Your task to perform on an android device: turn off notifications settings in the gmail app Image 0: 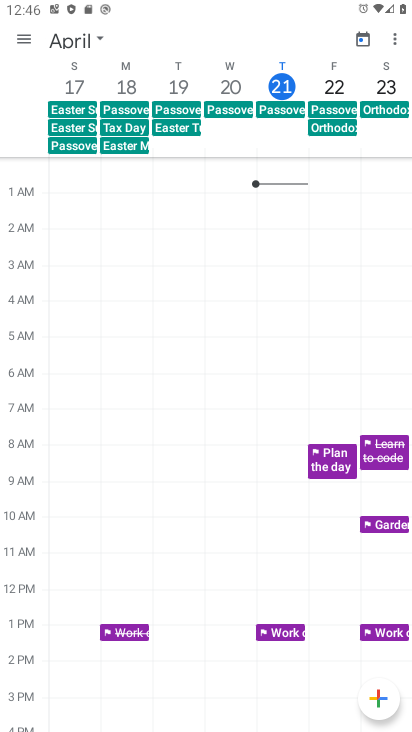
Step 0: press home button
Your task to perform on an android device: turn off notifications settings in the gmail app Image 1: 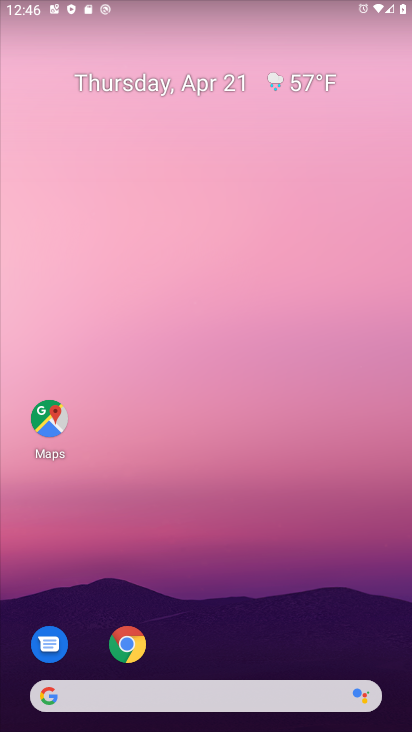
Step 1: drag from (221, 668) to (151, 59)
Your task to perform on an android device: turn off notifications settings in the gmail app Image 2: 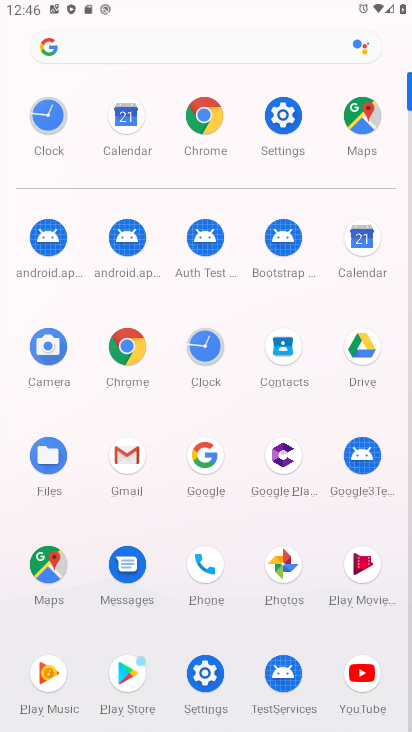
Step 2: click (115, 461)
Your task to perform on an android device: turn off notifications settings in the gmail app Image 3: 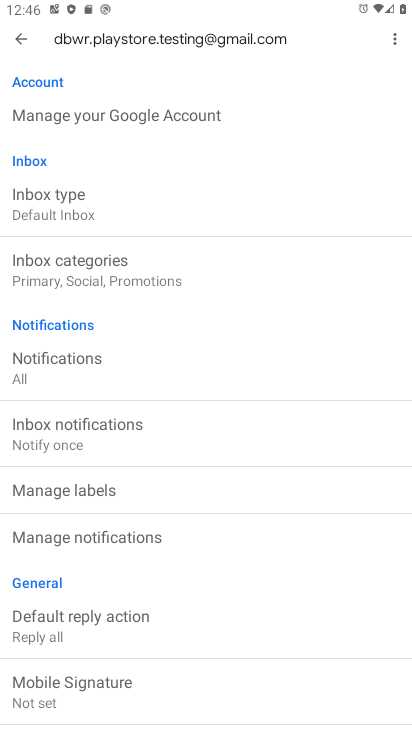
Step 3: click (21, 37)
Your task to perform on an android device: turn off notifications settings in the gmail app Image 4: 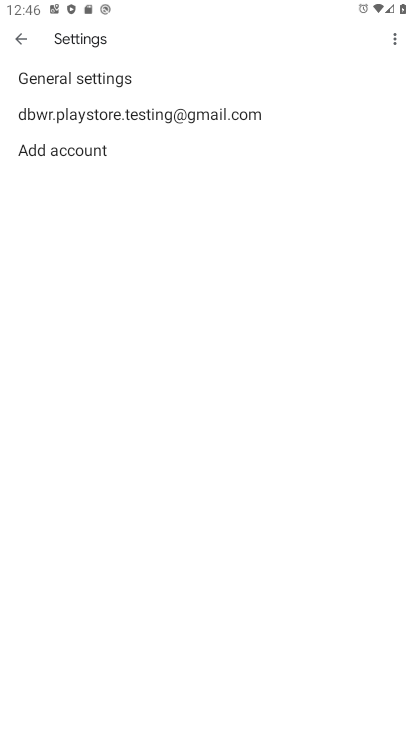
Step 4: click (41, 74)
Your task to perform on an android device: turn off notifications settings in the gmail app Image 5: 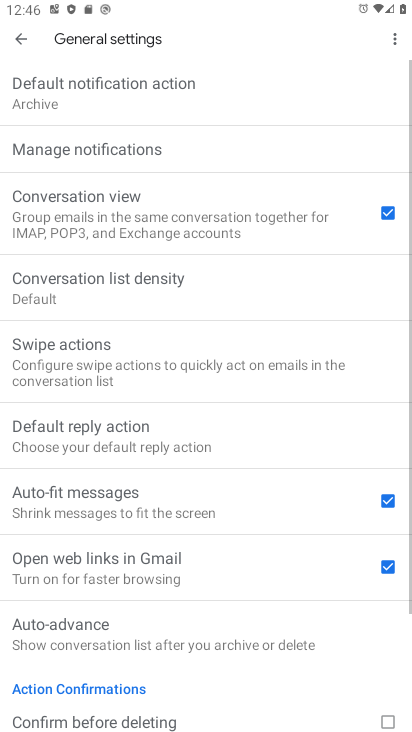
Step 5: click (79, 153)
Your task to perform on an android device: turn off notifications settings in the gmail app Image 6: 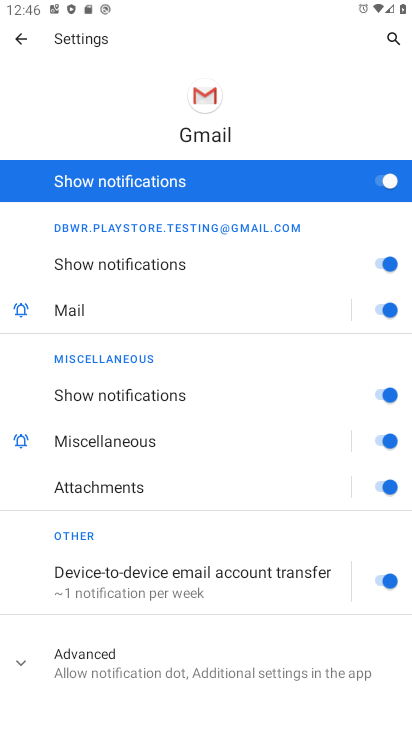
Step 6: click (377, 185)
Your task to perform on an android device: turn off notifications settings in the gmail app Image 7: 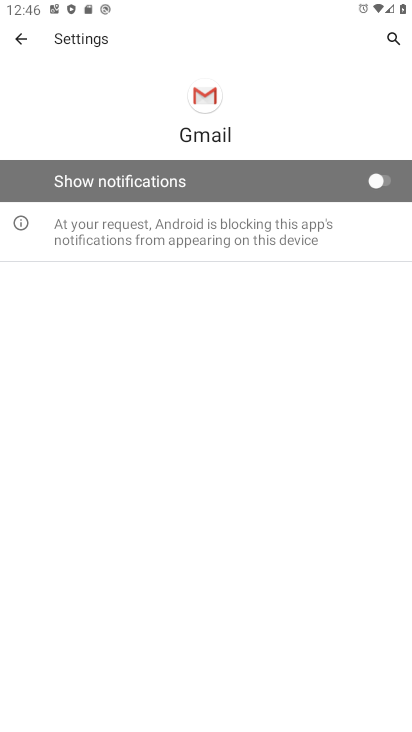
Step 7: task complete